Your task to perform on an android device: Go to notification settings Image 0: 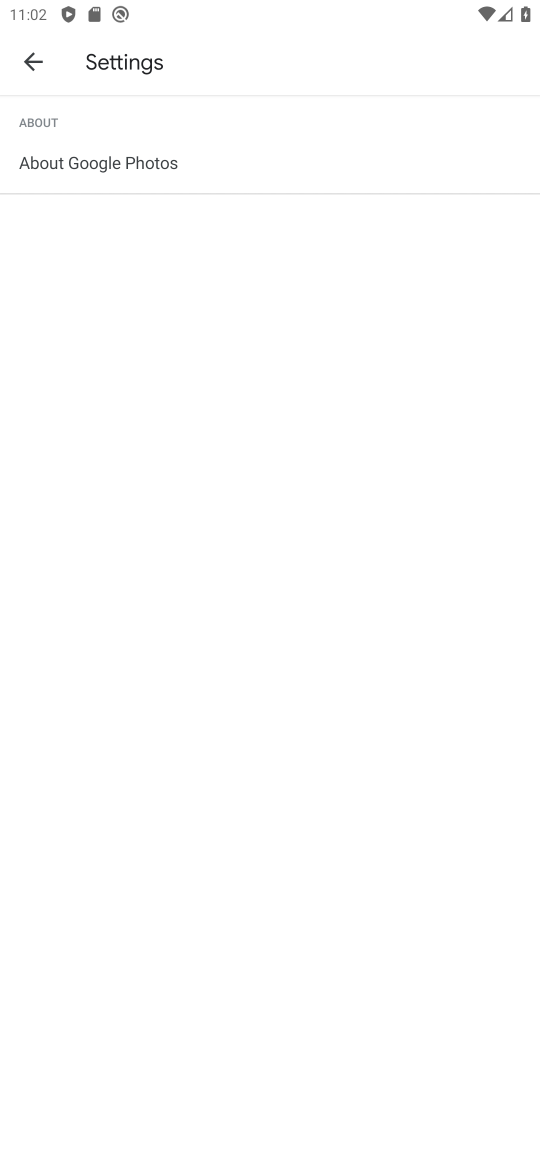
Step 0: task complete